Your task to perform on an android device: open chrome privacy settings Image 0: 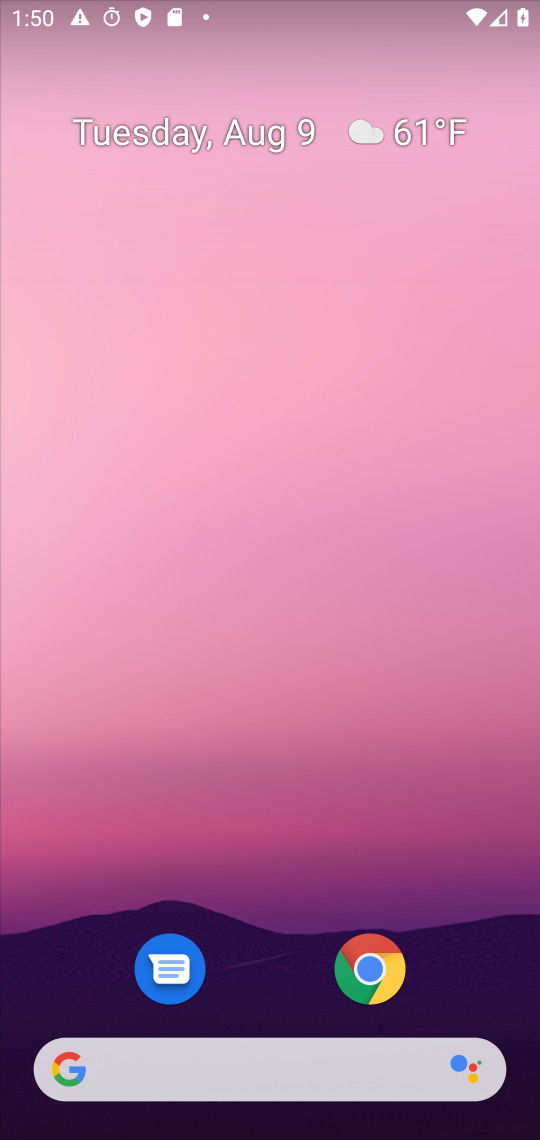
Step 0: press home button
Your task to perform on an android device: open chrome privacy settings Image 1: 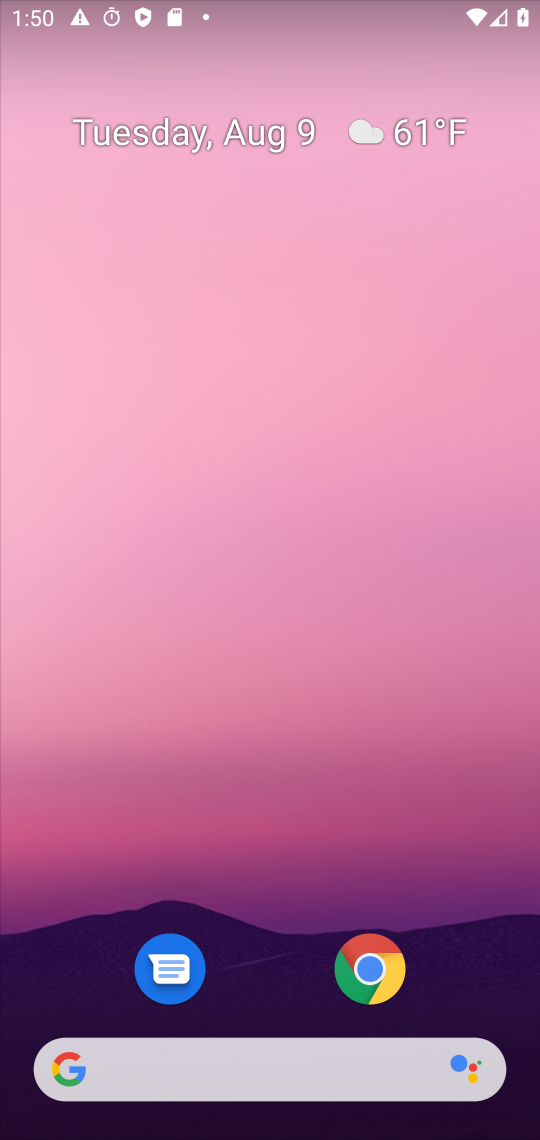
Step 1: drag from (307, 1061) to (274, 270)
Your task to perform on an android device: open chrome privacy settings Image 2: 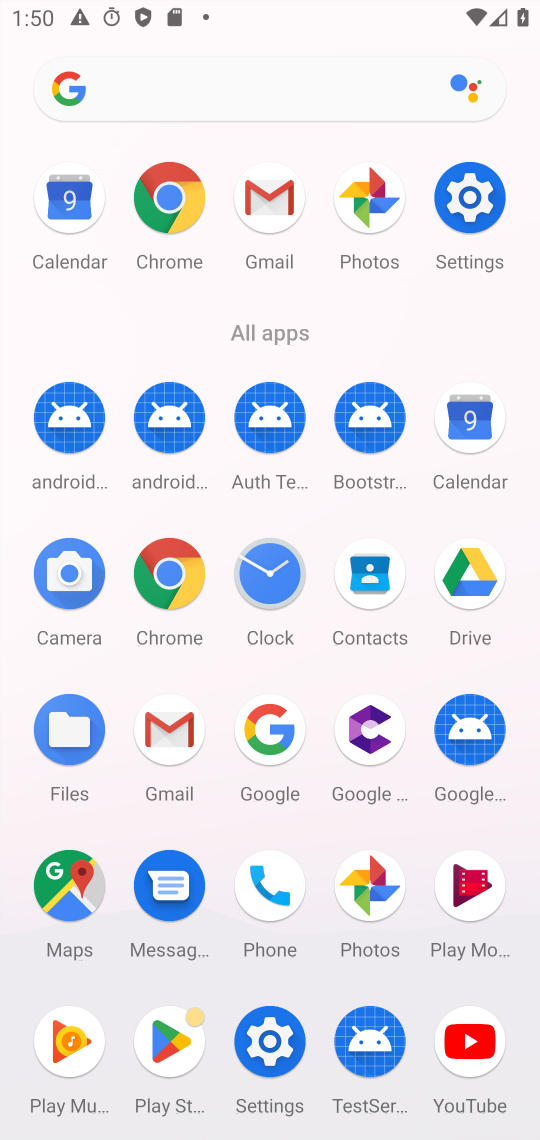
Step 2: click (456, 219)
Your task to perform on an android device: open chrome privacy settings Image 3: 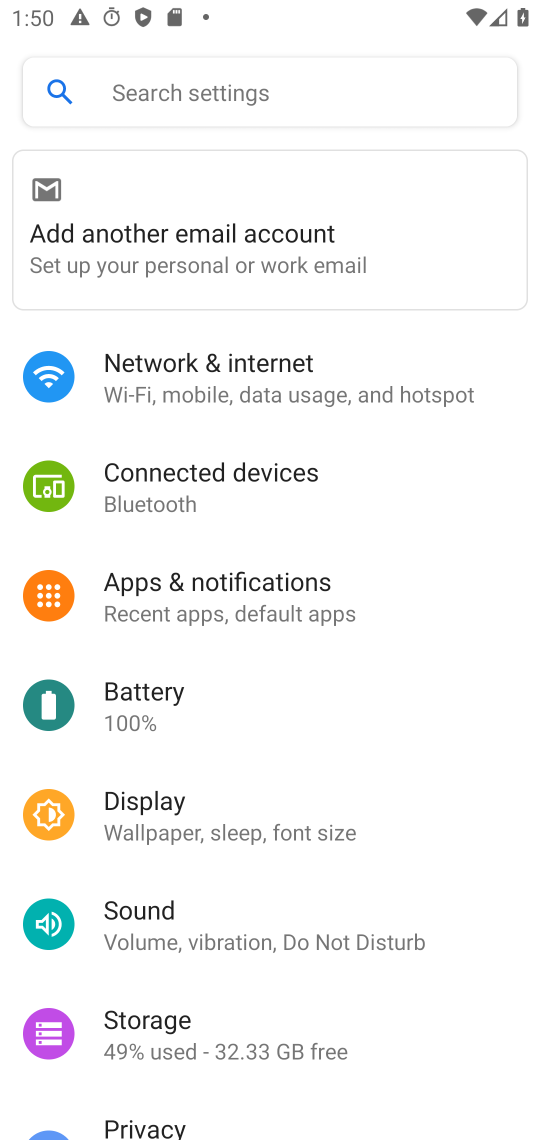
Step 3: press home button
Your task to perform on an android device: open chrome privacy settings Image 4: 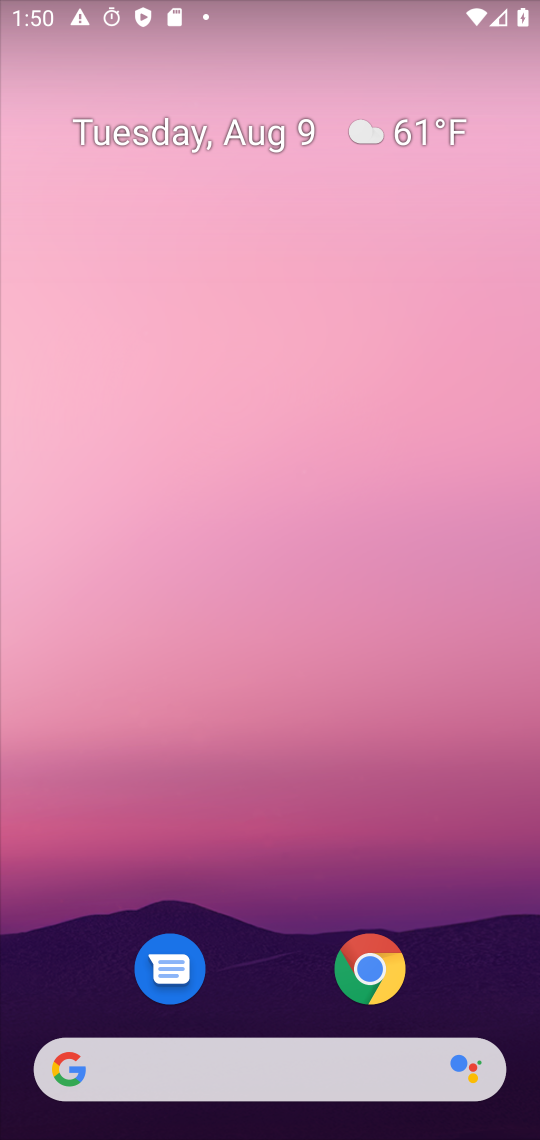
Step 4: click (381, 949)
Your task to perform on an android device: open chrome privacy settings Image 5: 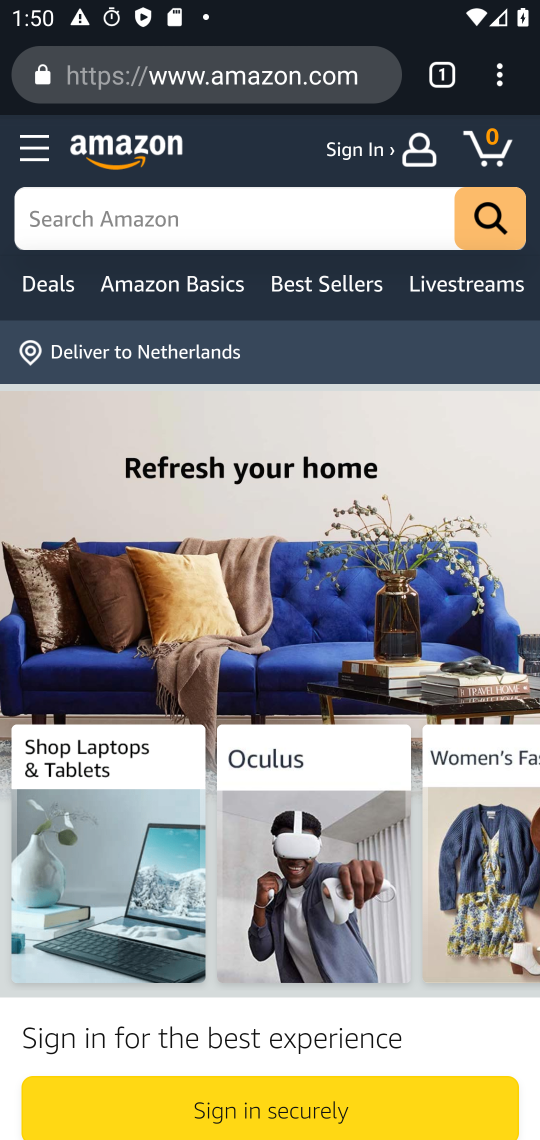
Step 5: click (495, 96)
Your task to perform on an android device: open chrome privacy settings Image 6: 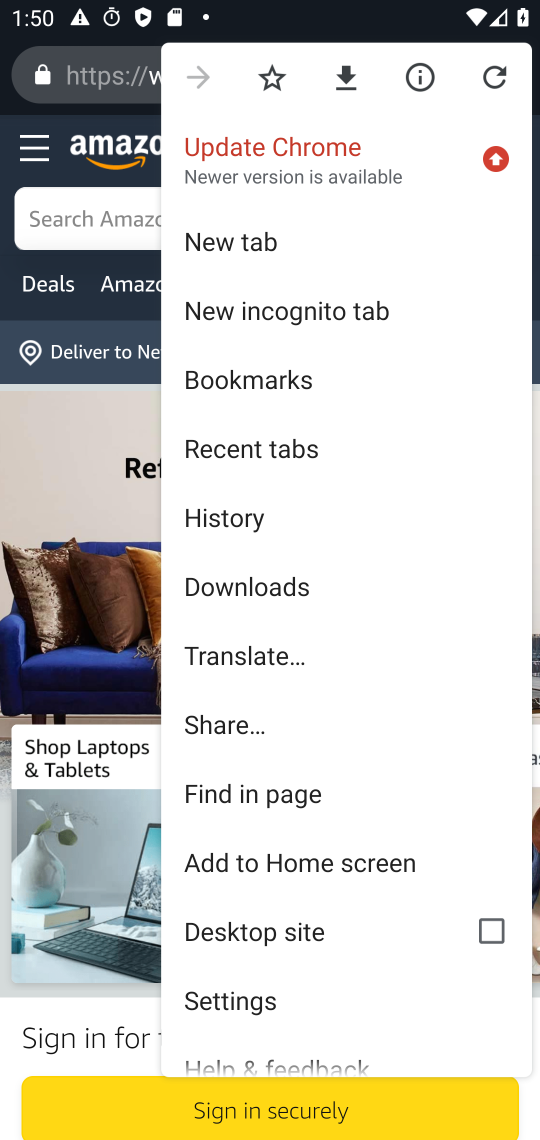
Step 6: click (245, 1005)
Your task to perform on an android device: open chrome privacy settings Image 7: 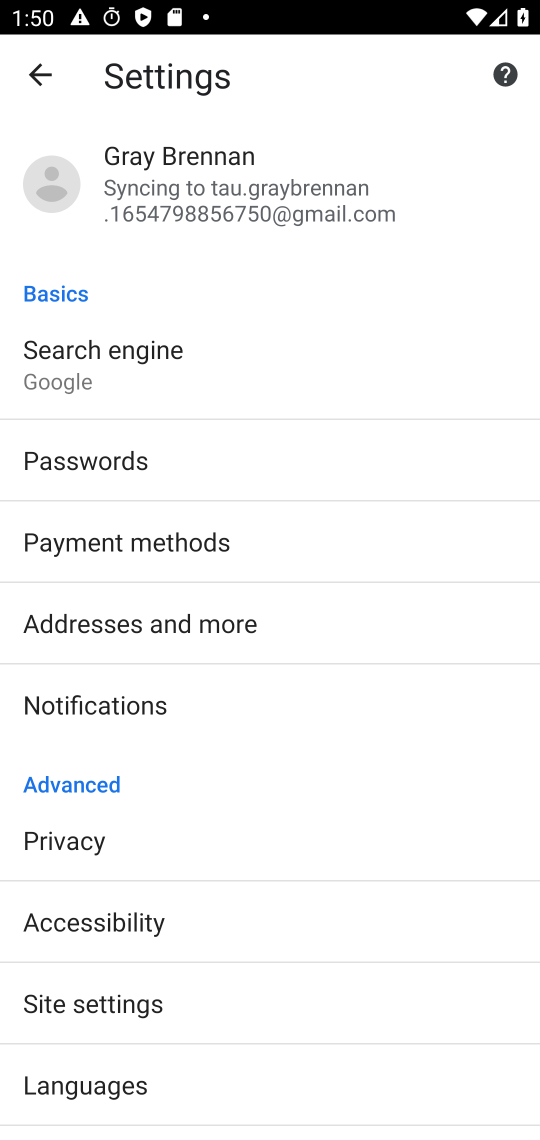
Step 7: click (95, 852)
Your task to perform on an android device: open chrome privacy settings Image 8: 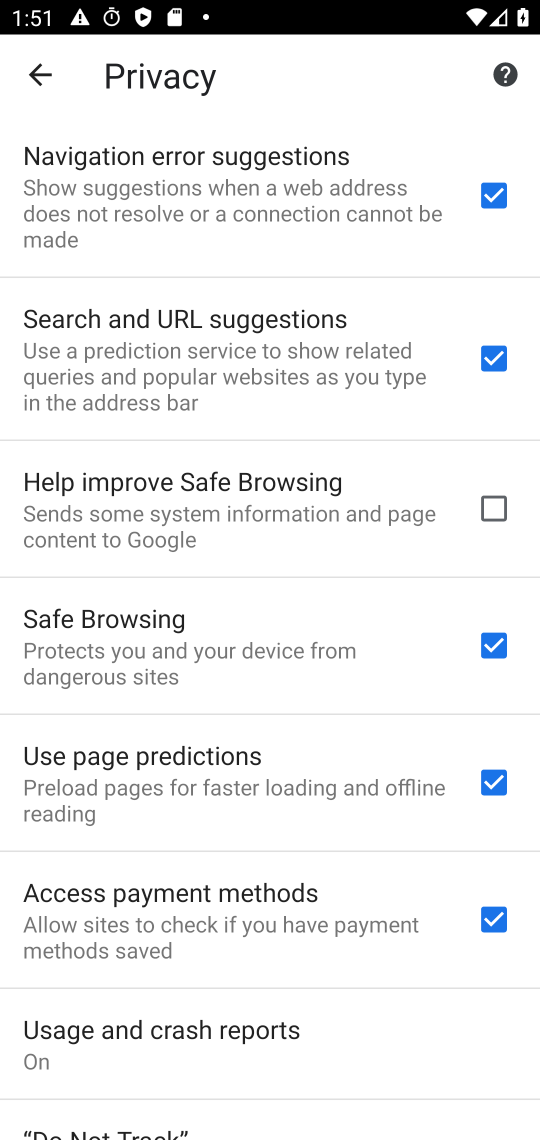
Step 8: task complete